Your task to perform on an android device: Open calendar and show me the first week of next month Image 0: 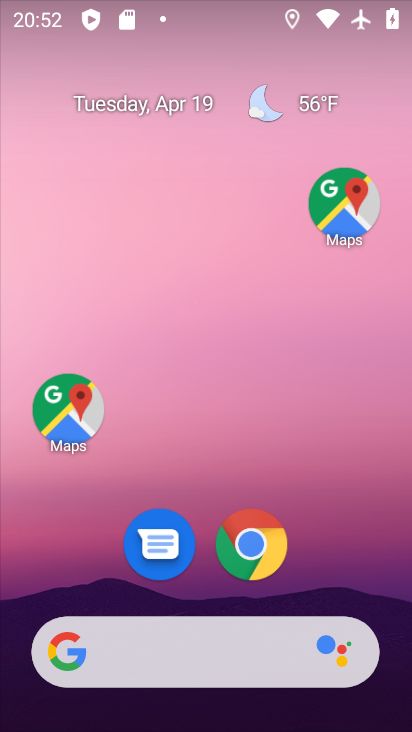
Step 0: drag from (161, 663) to (321, 152)
Your task to perform on an android device: Open calendar and show me the first week of next month Image 1: 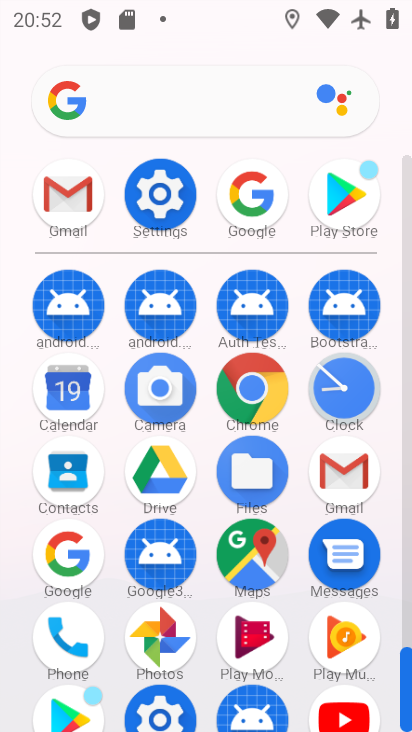
Step 1: click (62, 396)
Your task to perform on an android device: Open calendar and show me the first week of next month Image 2: 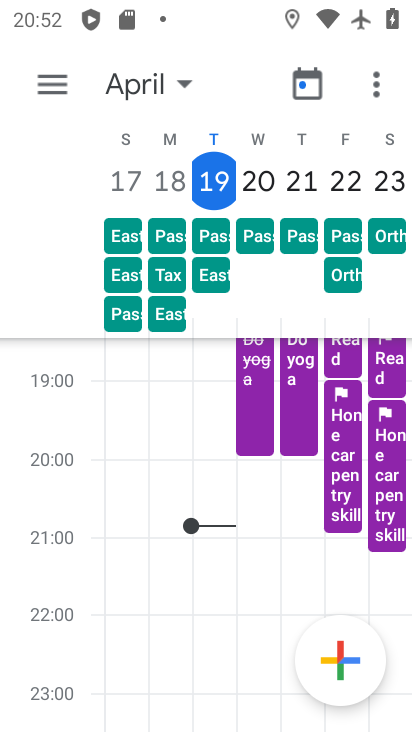
Step 2: click (127, 83)
Your task to perform on an android device: Open calendar and show me the first week of next month Image 3: 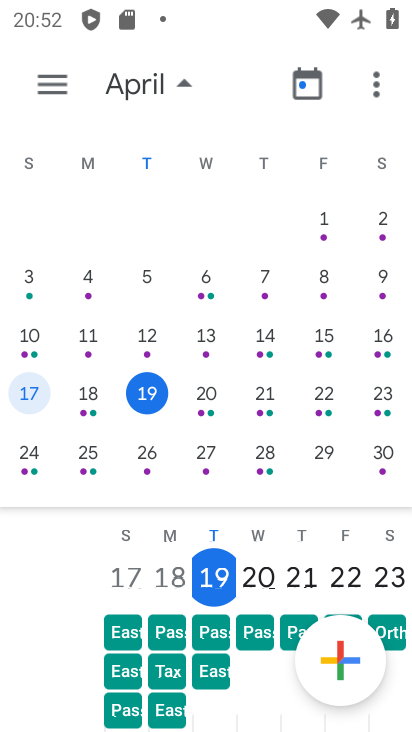
Step 3: drag from (351, 416) to (0, 342)
Your task to perform on an android device: Open calendar and show me the first week of next month Image 4: 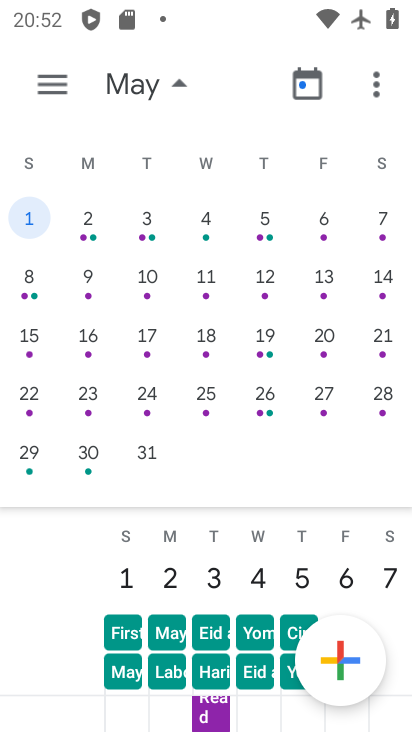
Step 4: click (45, 87)
Your task to perform on an android device: Open calendar and show me the first week of next month Image 5: 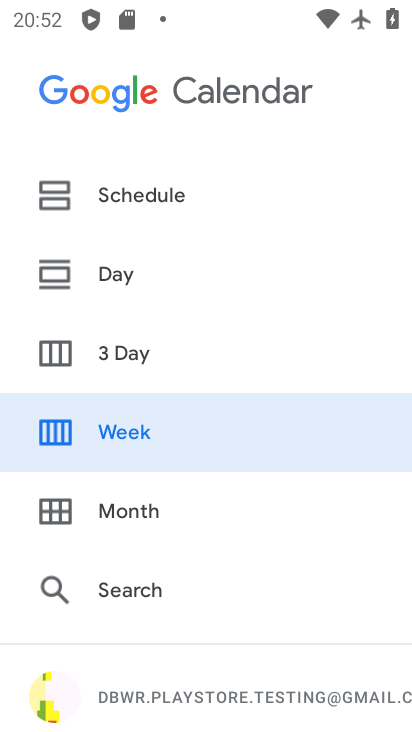
Step 5: click (129, 429)
Your task to perform on an android device: Open calendar and show me the first week of next month Image 6: 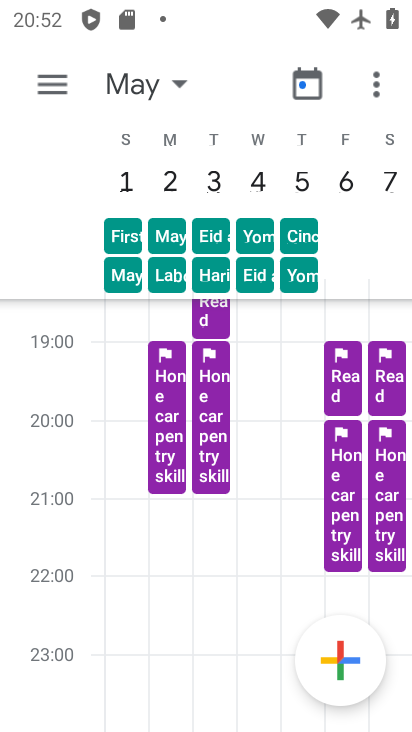
Step 6: task complete